Your task to perform on an android device: turn on priority inbox in the gmail app Image 0: 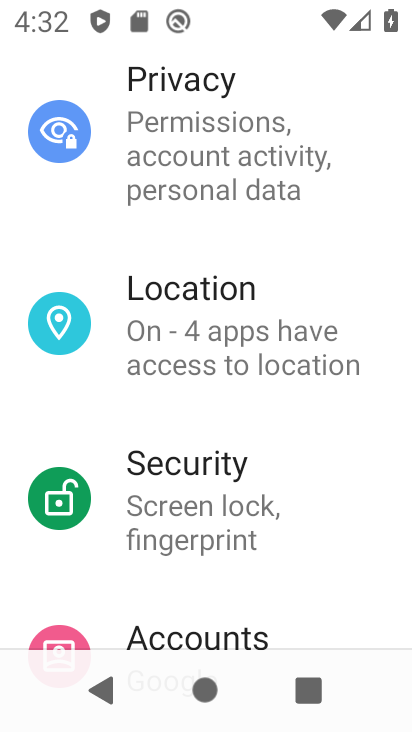
Step 0: press home button
Your task to perform on an android device: turn on priority inbox in the gmail app Image 1: 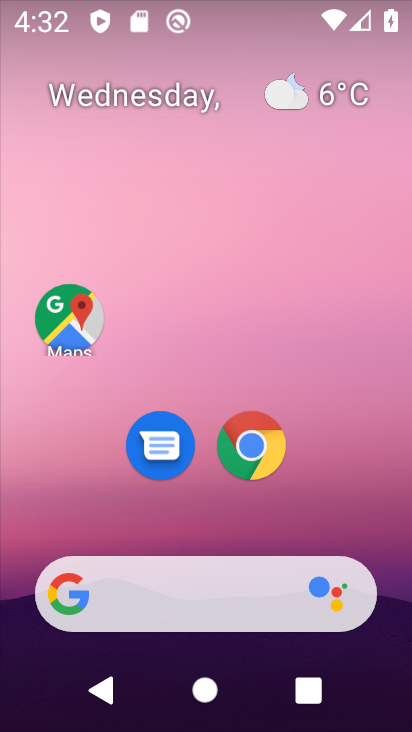
Step 1: drag from (330, 483) to (329, 40)
Your task to perform on an android device: turn on priority inbox in the gmail app Image 2: 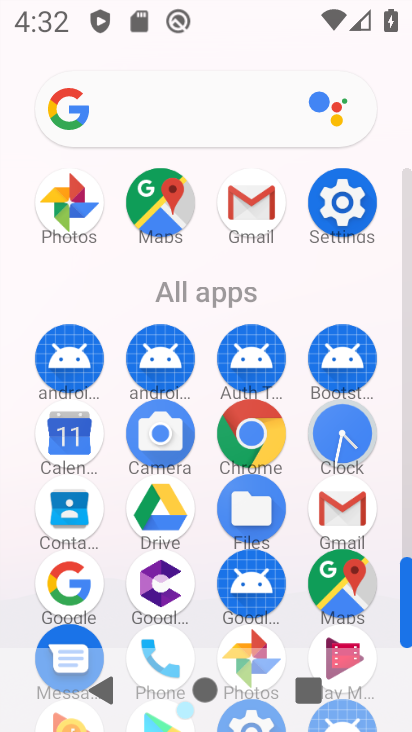
Step 2: click (259, 209)
Your task to perform on an android device: turn on priority inbox in the gmail app Image 3: 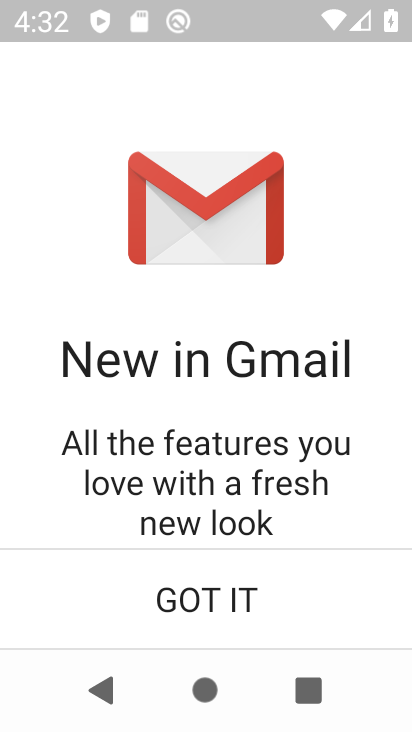
Step 3: click (227, 615)
Your task to perform on an android device: turn on priority inbox in the gmail app Image 4: 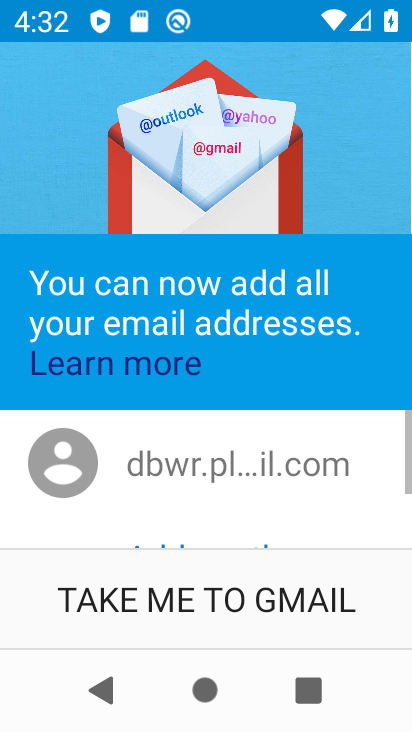
Step 4: drag from (229, 611) to (331, 225)
Your task to perform on an android device: turn on priority inbox in the gmail app Image 5: 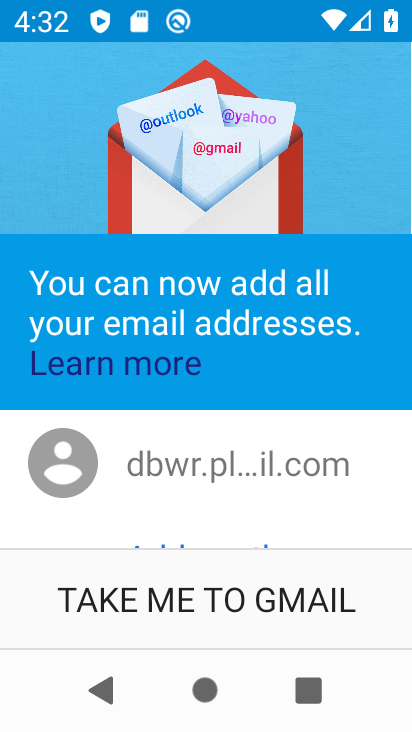
Step 5: click (244, 572)
Your task to perform on an android device: turn on priority inbox in the gmail app Image 6: 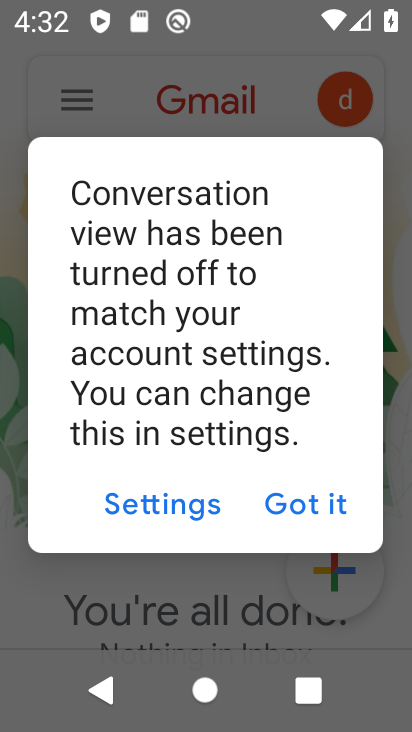
Step 6: click (317, 503)
Your task to perform on an android device: turn on priority inbox in the gmail app Image 7: 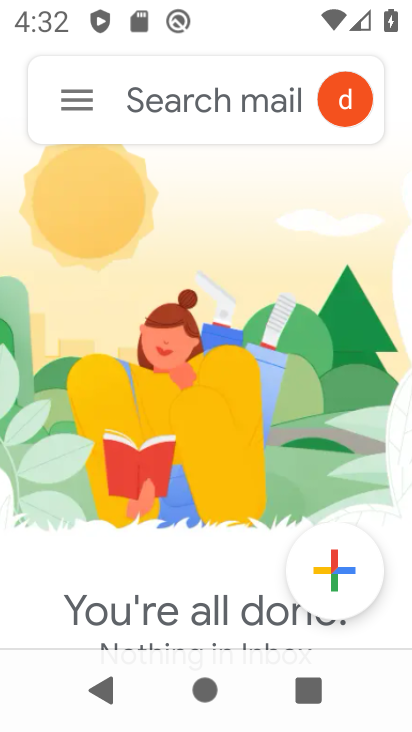
Step 7: click (68, 95)
Your task to perform on an android device: turn on priority inbox in the gmail app Image 8: 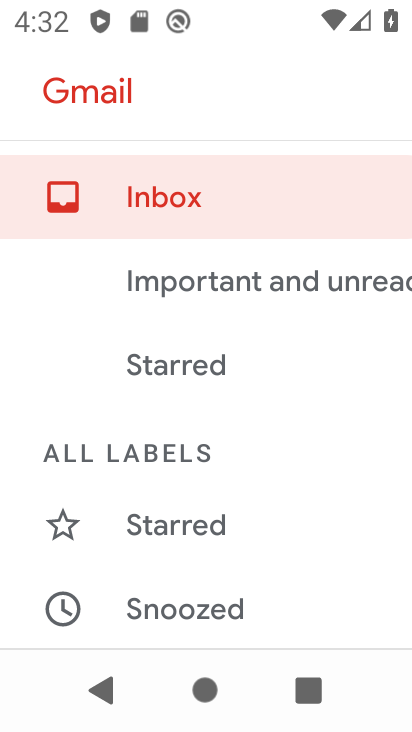
Step 8: drag from (169, 570) to (330, 139)
Your task to perform on an android device: turn on priority inbox in the gmail app Image 9: 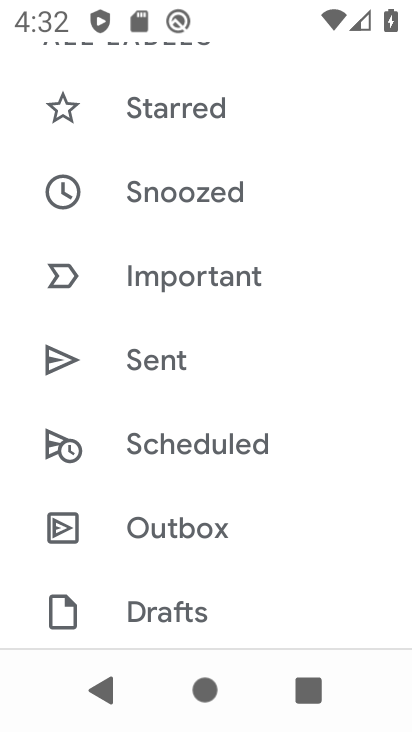
Step 9: drag from (209, 558) to (272, 79)
Your task to perform on an android device: turn on priority inbox in the gmail app Image 10: 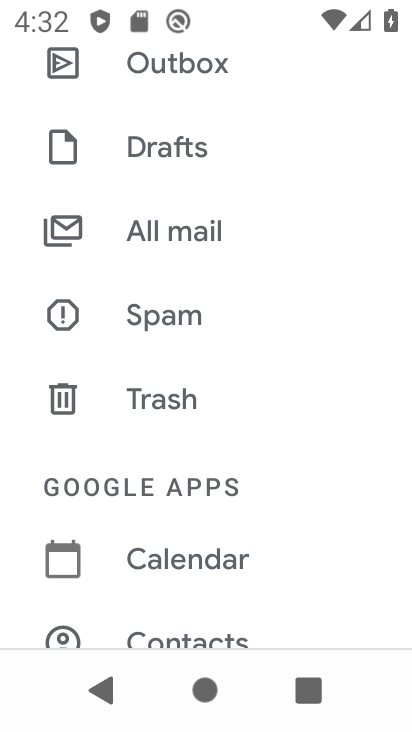
Step 10: drag from (184, 569) to (307, 96)
Your task to perform on an android device: turn on priority inbox in the gmail app Image 11: 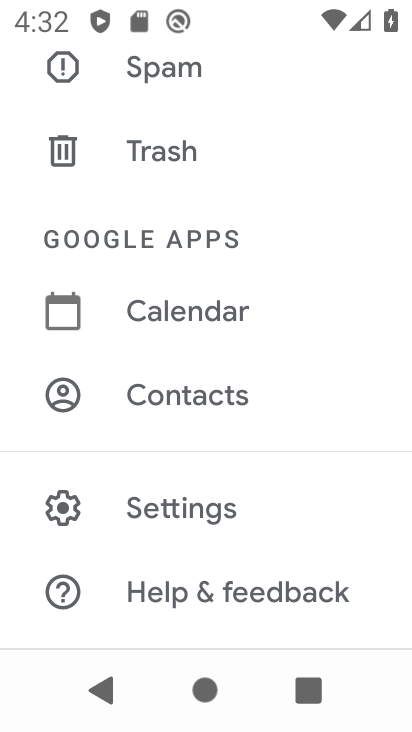
Step 11: click (193, 498)
Your task to perform on an android device: turn on priority inbox in the gmail app Image 12: 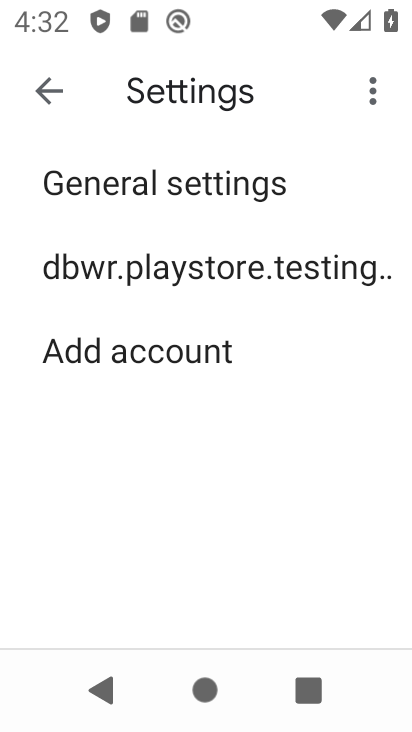
Step 12: click (193, 275)
Your task to perform on an android device: turn on priority inbox in the gmail app Image 13: 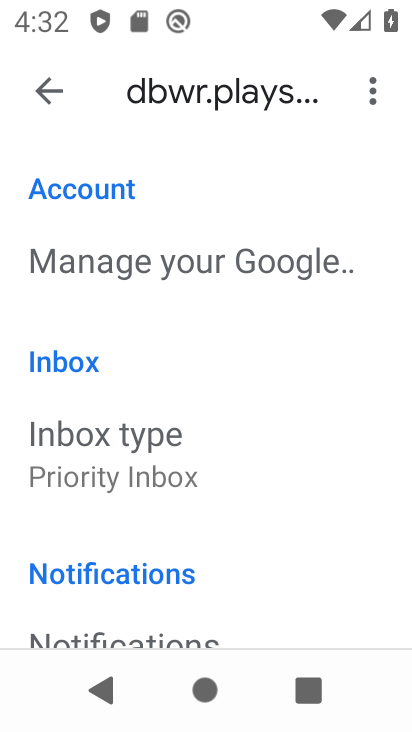
Step 13: click (113, 467)
Your task to perform on an android device: turn on priority inbox in the gmail app Image 14: 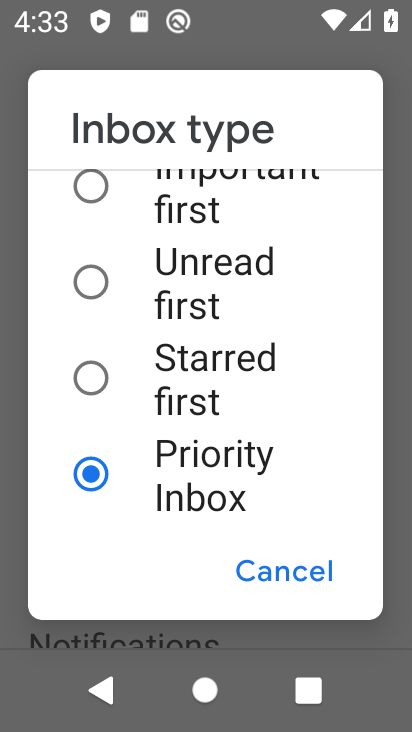
Step 14: task complete